Your task to perform on an android device: Open Google Chrome and click the shortcut for Amazon.com Image 0: 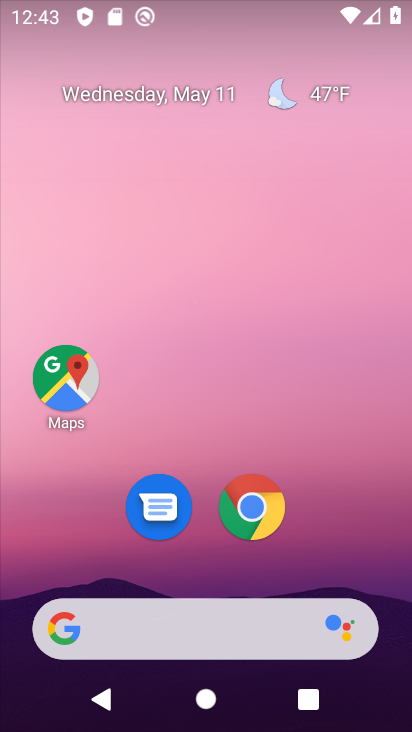
Step 0: click (252, 503)
Your task to perform on an android device: Open Google Chrome and click the shortcut for Amazon.com Image 1: 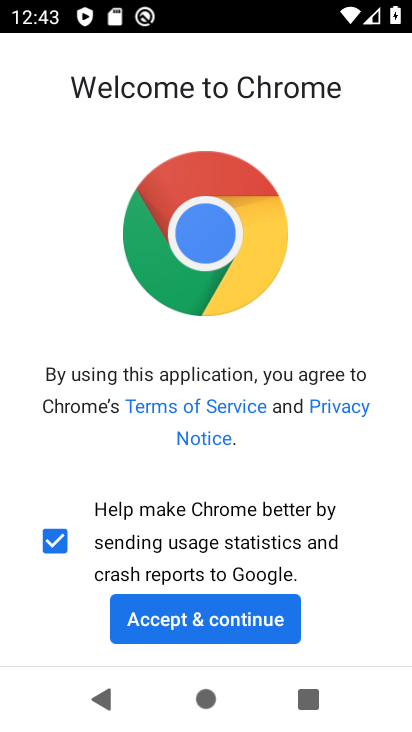
Step 1: click (185, 631)
Your task to perform on an android device: Open Google Chrome and click the shortcut for Amazon.com Image 2: 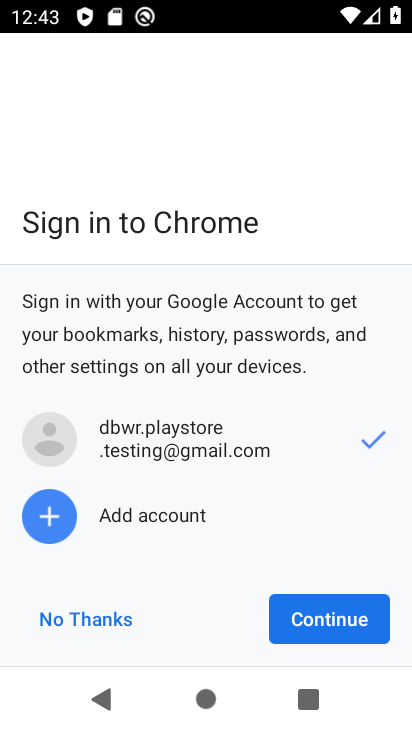
Step 2: click (309, 612)
Your task to perform on an android device: Open Google Chrome and click the shortcut for Amazon.com Image 3: 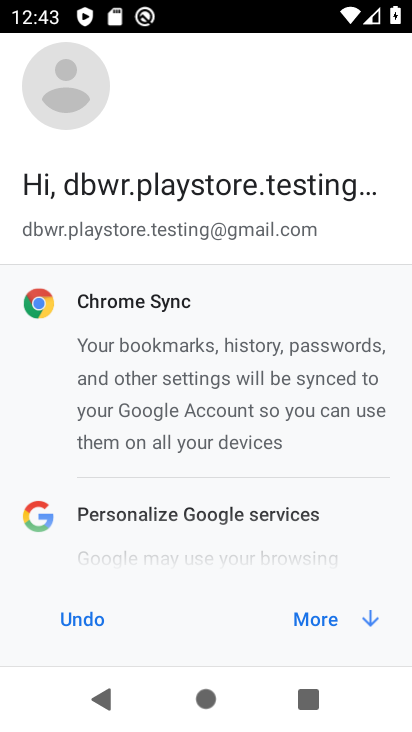
Step 3: click (366, 618)
Your task to perform on an android device: Open Google Chrome and click the shortcut for Amazon.com Image 4: 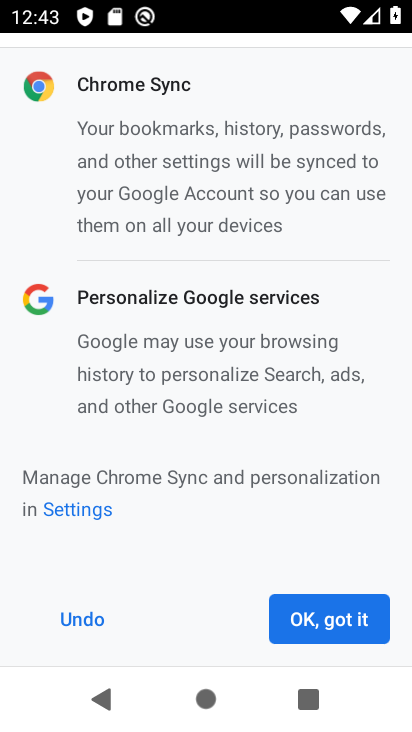
Step 4: click (317, 622)
Your task to perform on an android device: Open Google Chrome and click the shortcut for Amazon.com Image 5: 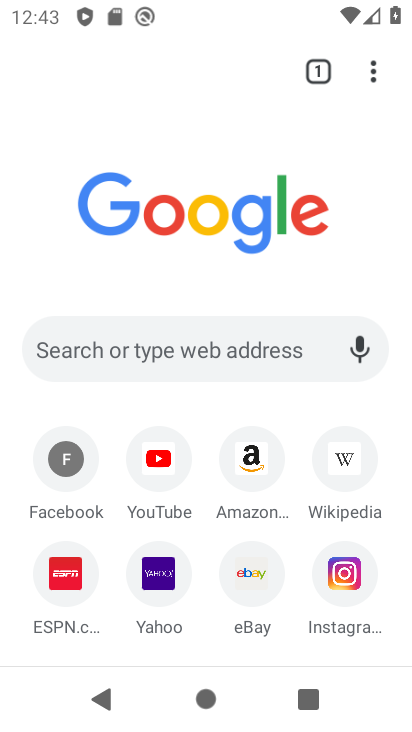
Step 5: click (371, 72)
Your task to perform on an android device: Open Google Chrome and click the shortcut for Amazon.com Image 6: 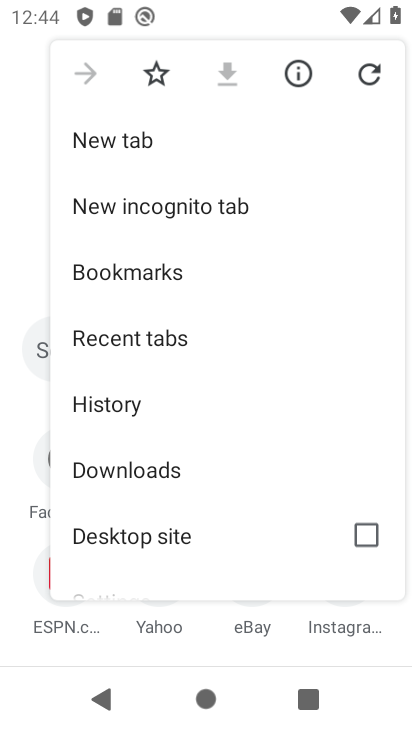
Step 6: click (113, 141)
Your task to perform on an android device: Open Google Chrome and click the shortcut for Amazon.com Image 7: 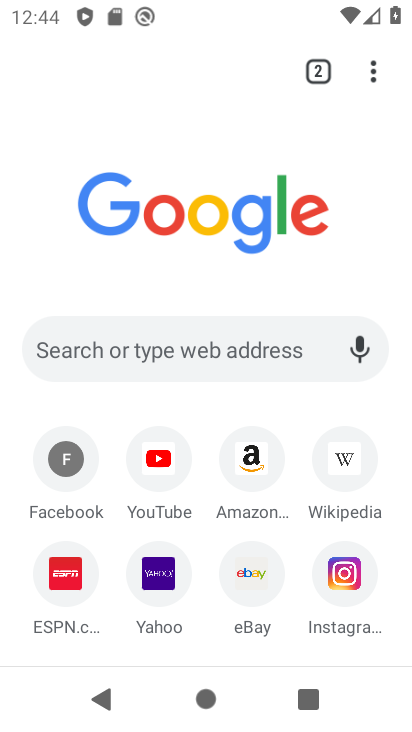
Step 7: click (249, 450)
Your task to perform on an android device: Open Google Chrome and click the shortcut for Amazon.com Image 8: 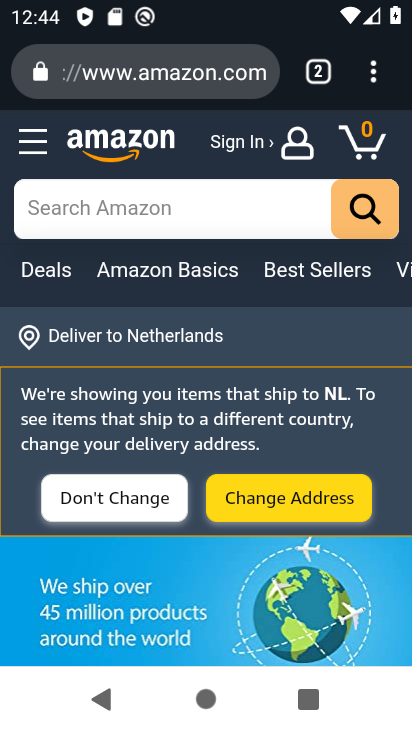
Step 8: task complete